Your task to perform on an android device: change text size in settings app Image 0: 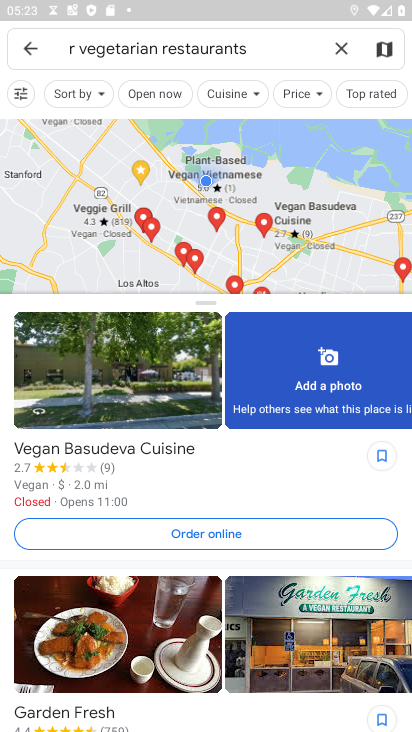
Step 0: press home button
Your task to perform on an android device: change text size in settings app Image 1: 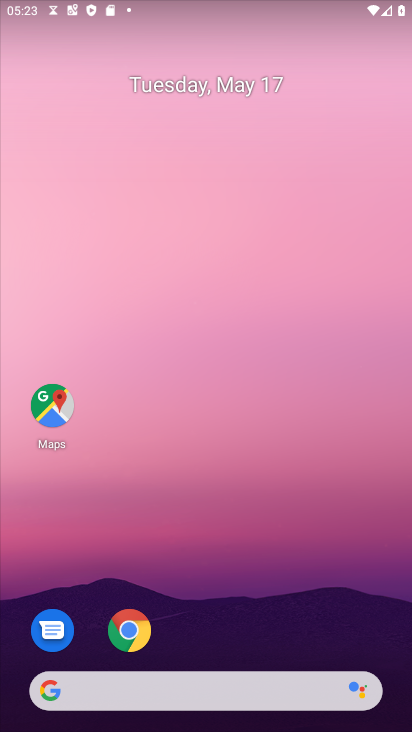
Step 1: drag from (228, 646) to (217, 233)
Your task to perform on an android device: change text size in settings app Image 2: 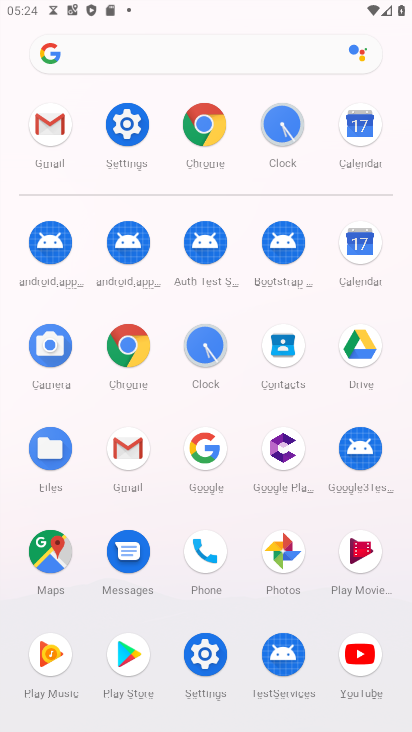
Step 2: click (126, 118)
Your task to perform on an android device: change text size in settings app Image 3: 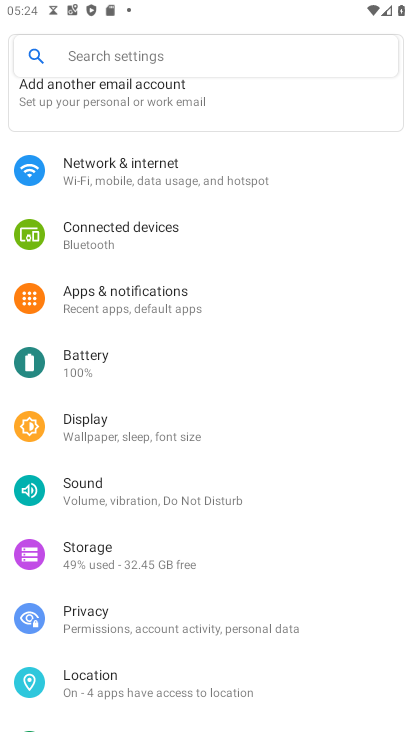
Step 3: drag from (143, 622) to (175, 307)
Your task to perform on an android device: change text size in settings app Image 4: 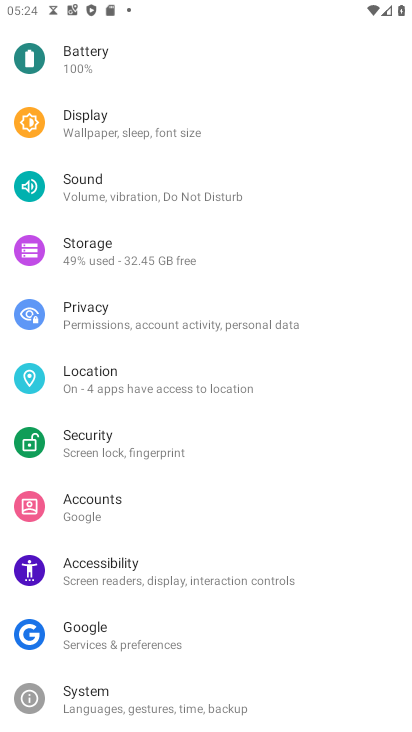
Step 4: click (122, 123)
Your task to perform on an android device: change text size in settings app Image 5: 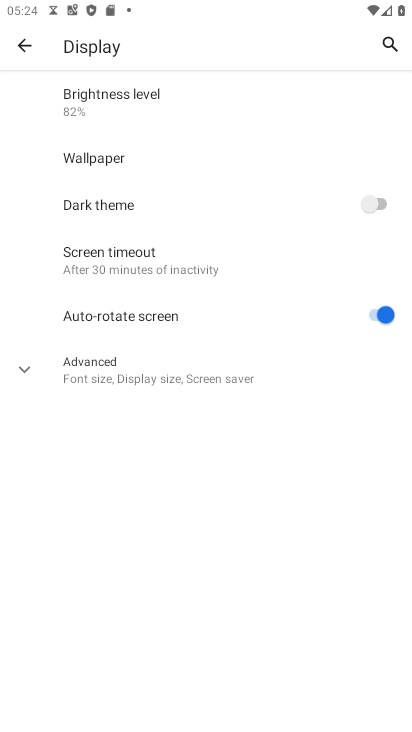
Step 5: task complete